Your task to perform on an android device: Show me recent news Image 0: 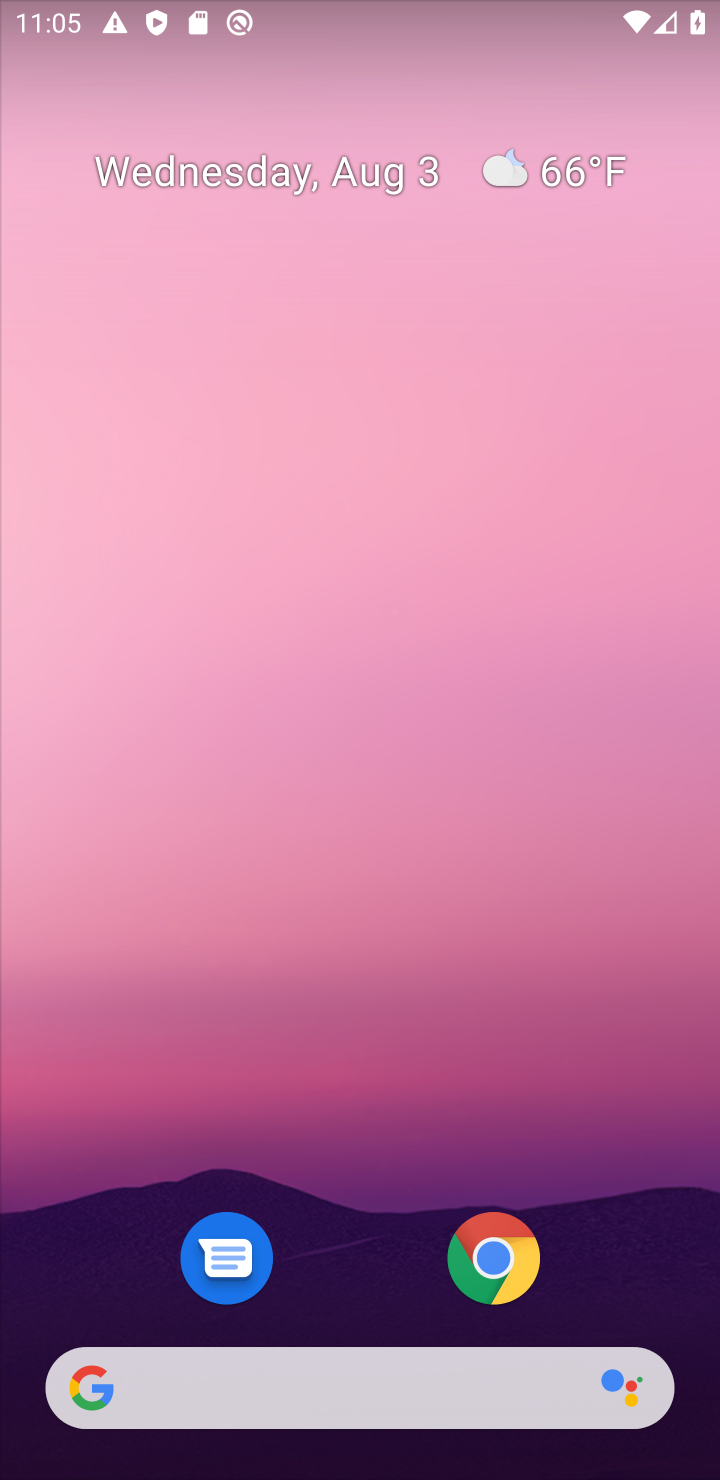
Step 0: drag from (113, 657) to (720, 684)
Your task to perform on an android device: Show me recent news Image 1: 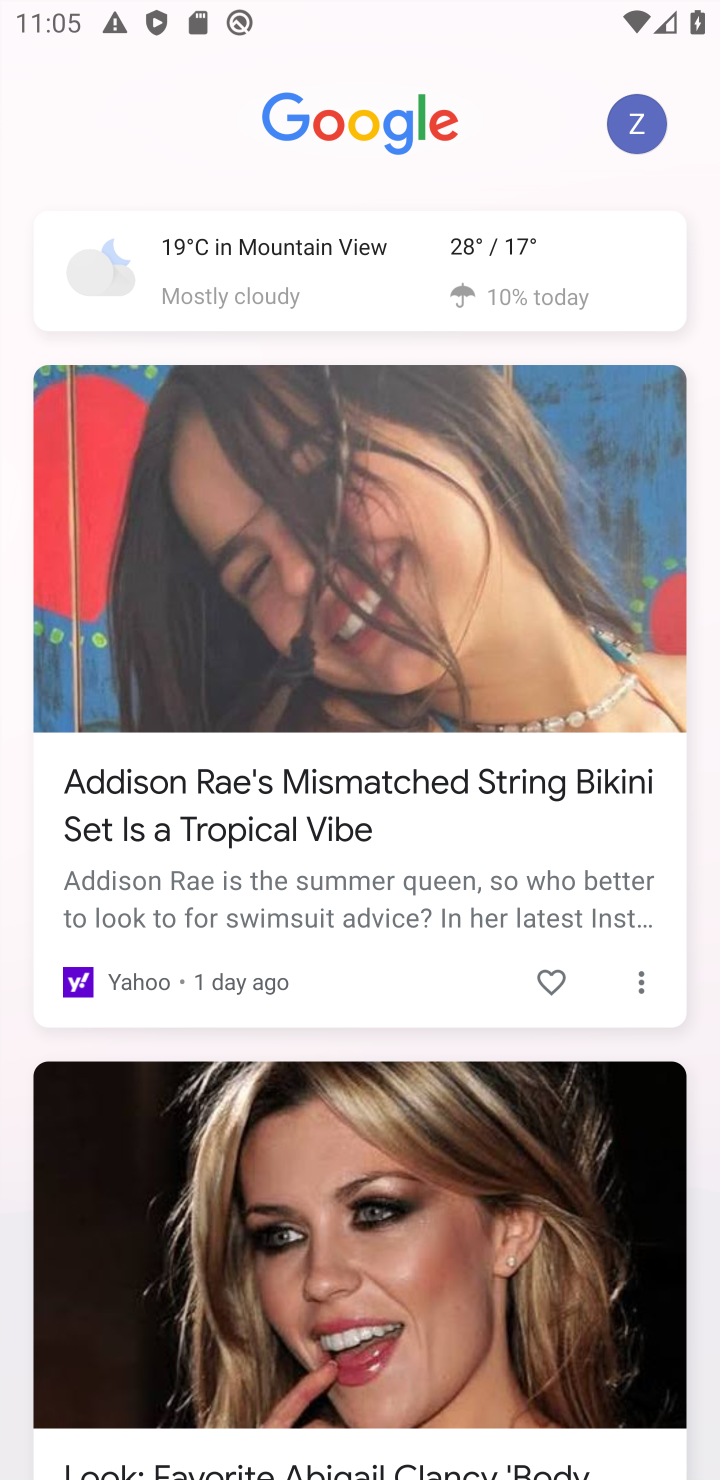
Step 1: task complete